Your task to perform on an android device: Turn on the flashlight Image 0: 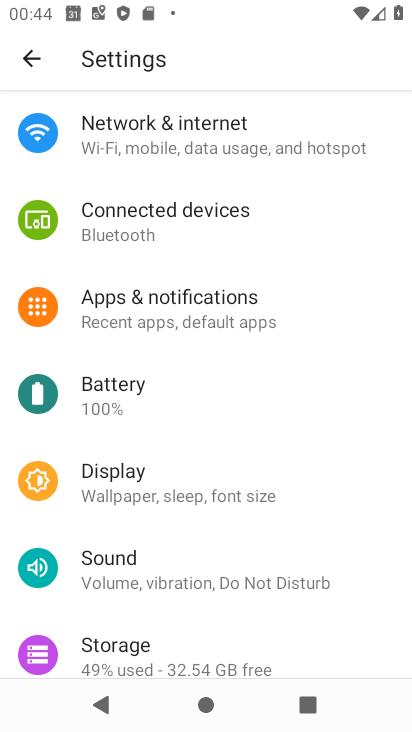
Step 0: click (197, 487)
Your task to perform on an android device: Turn on the flashlight Image 1: 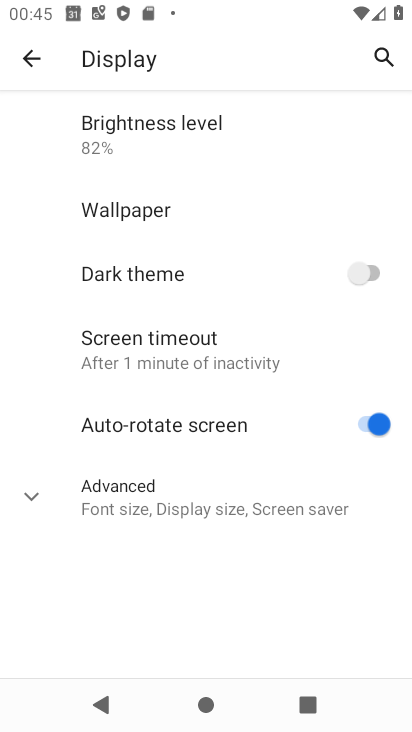
Step 1: task complete